Your task to perform on an android device: Go to notification settings Image 0: 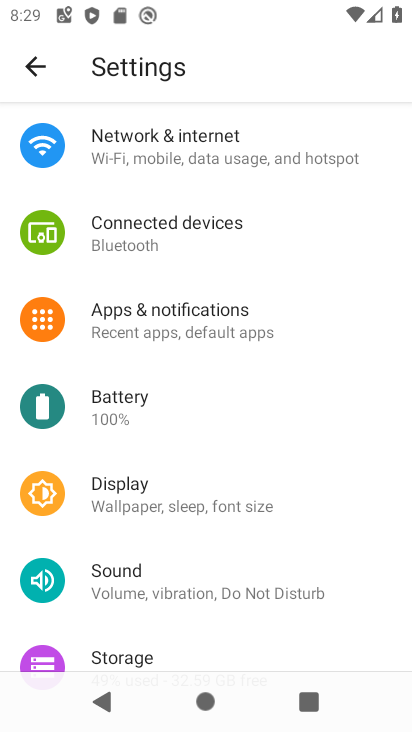
Step 0: click (231, 310)
Your task to perform on an android device: Go to notification settings Image 1: 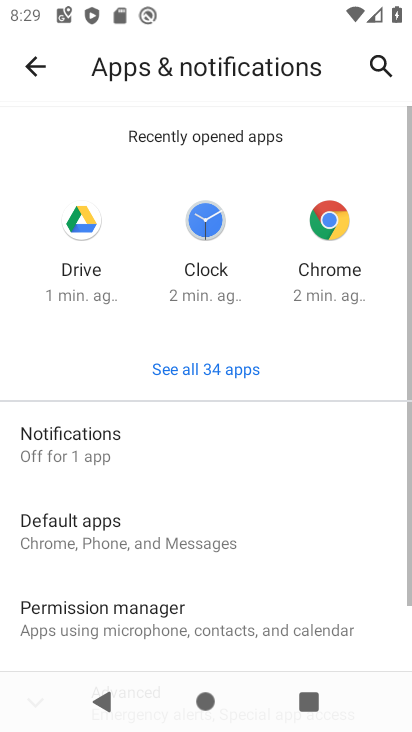
Step 1: click (147, 435)
Your task to perform on an android device: Go to notification settings Image 2: 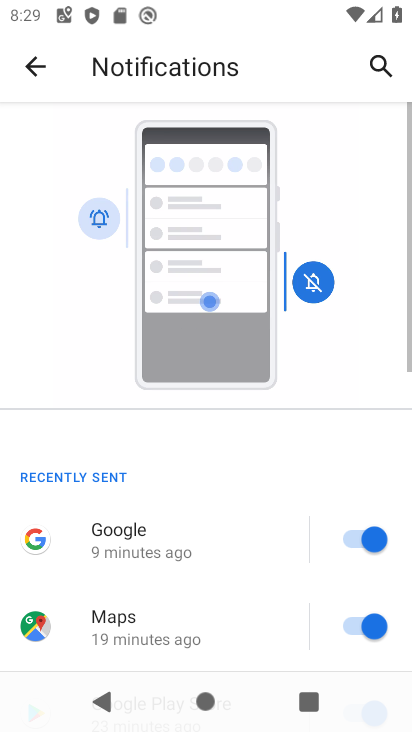
Step 2: task complete